Your task to perform on an android device: Open Maps and search for coffee Image 0: 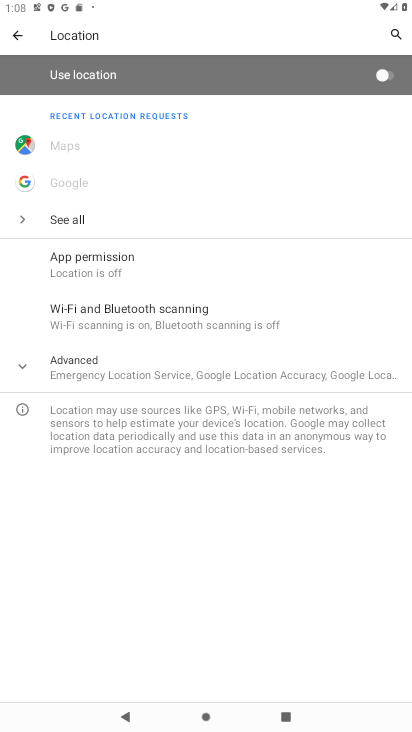
Step 0: press home button
Your task to perform on an android device: Open Maps and search for coffee Image 1: 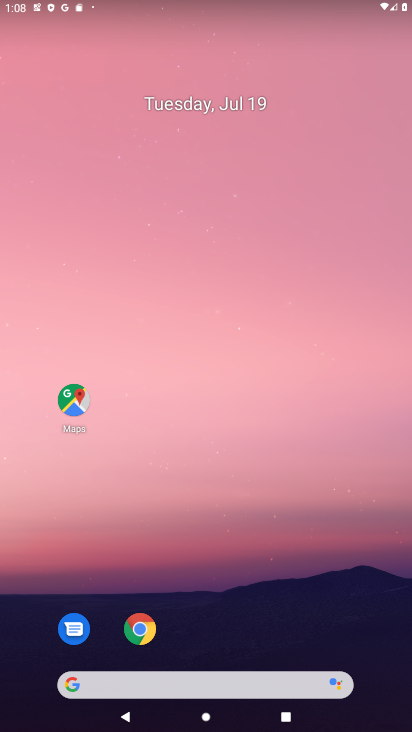
Step 1: click (70, 410)
Your task to perform on an android device: Open Maps and search for coffee Image 2: 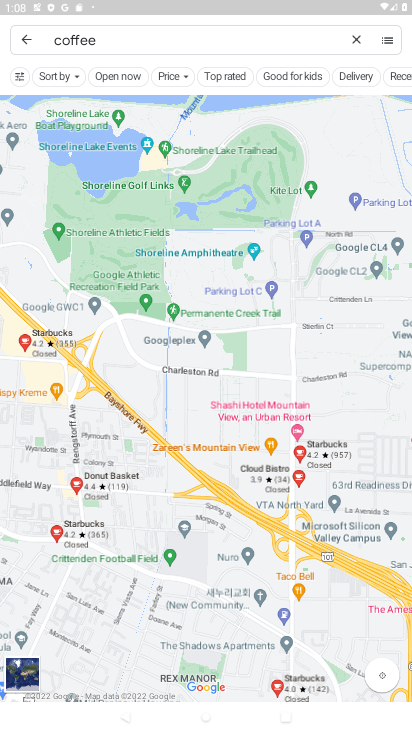
Step 2: click (152, 34)
Your task to perform on an android device: Open Maps and search for coffee Image 3: 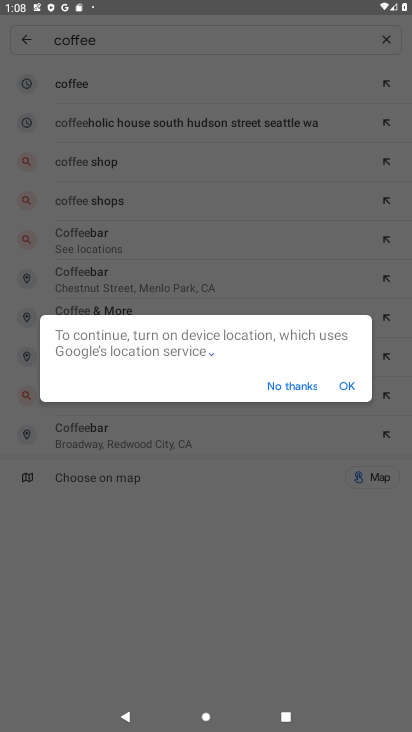
Step 3: click (281, 389)
Your task to perform on an android device: Open Maps and search for coffee Image 4: 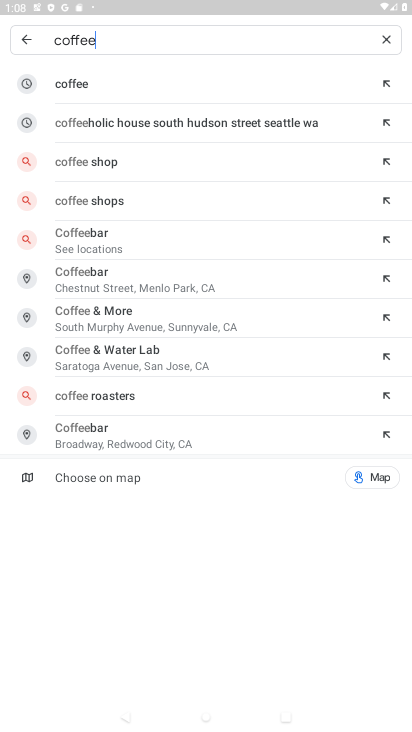
Step 4: click (102, 86)
Your task to perform on an android device: Open Maps and search for coffee Image 5: 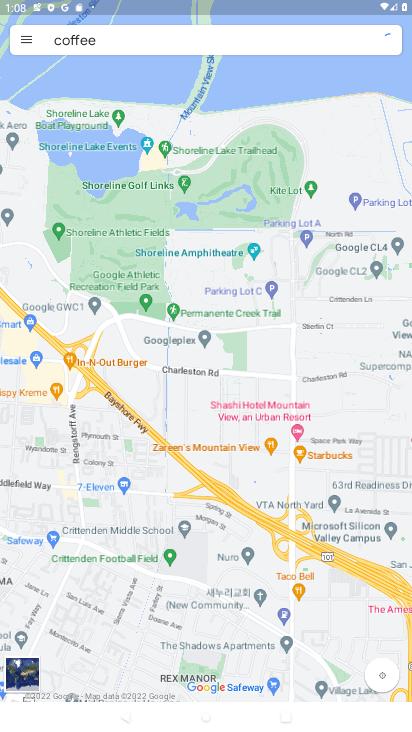
Step 5: task complete